Your task to perform on an android device: Open display settings Image 0: 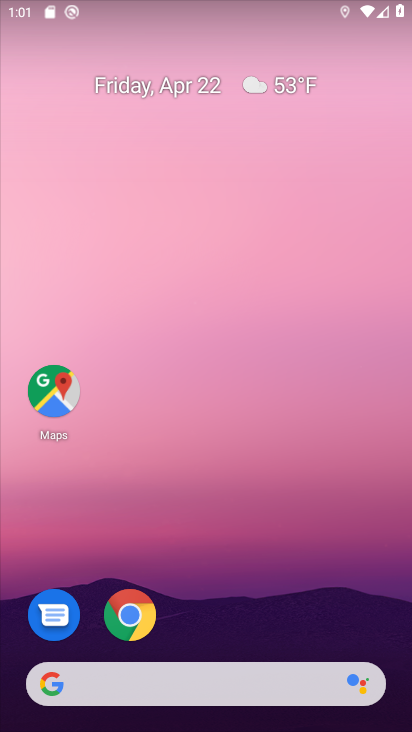
Step 0: drag from (250, 724) to (319, 104)
Your task to perform on an android device: Open display settings Image 1: 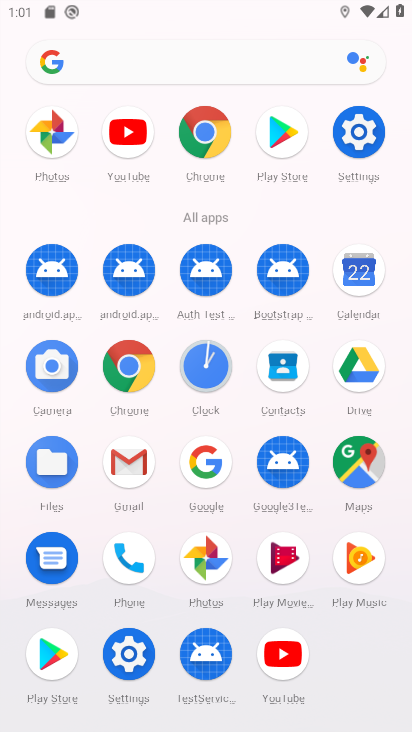
Step 1: click (366, 138)
Your task to perform on an android device: Open display settings Image 2: 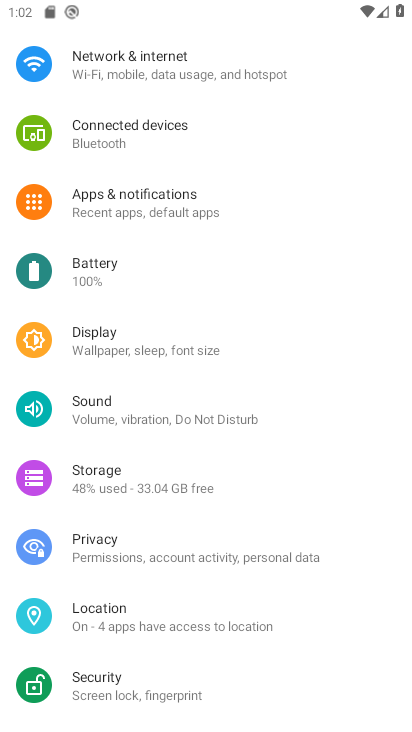
Step 2: click (133, 344)
Your task to perform on an android device: Open display settings Image 3: 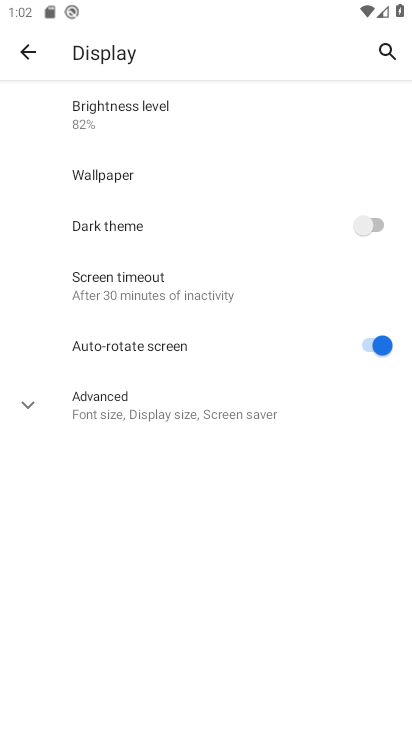
Step 3: task complete